Your task to perform on an android device: open app "Airtel Thanks" Image 0: 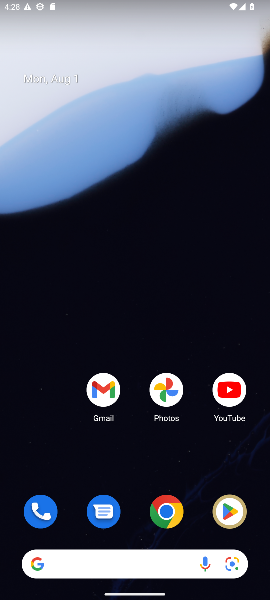
Step 0: press home button
Your task to perform on an android device: open app "Airtel Thanks" Image 1: 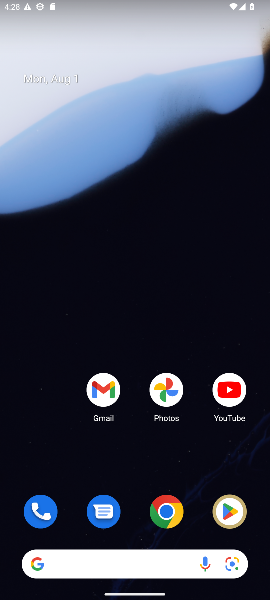
Step 1: drag from (121, 512) to (183, 149)
Your task to perform on an android device: open app "Airtel Thanks" Image 2: 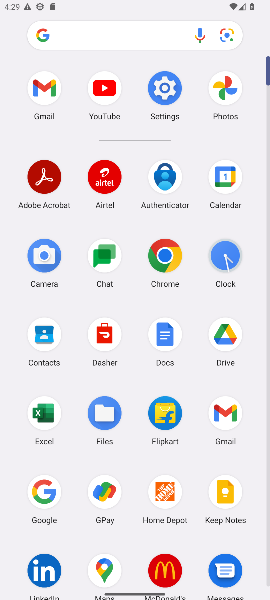
Step 2: drag from (123, 520) to (136, 292)
Your task to perform on an android device: open app "Airtel Thanks" Image 3: 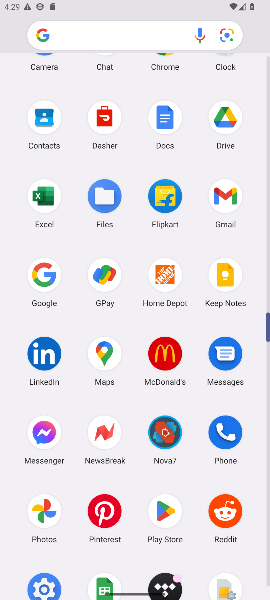
Step 3: click (164, 534)
Your task to perform on an android device: open app "Airtel Thanks" Image 4: 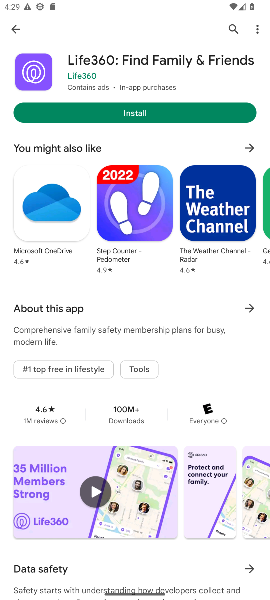
Step 4: click (17, 22)
Your task to perform on an android device: open app "Airtel Thanks" Image 5: 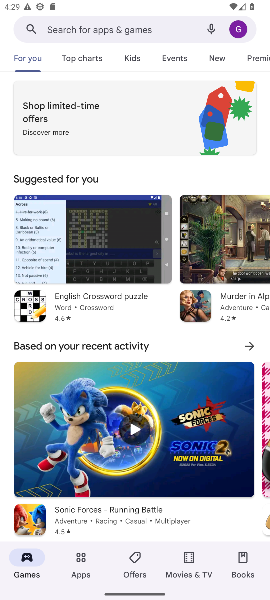
Step 5: click (112, 34)
Your task to perform on an android device: open app "Airtel Thanks" Image 6: 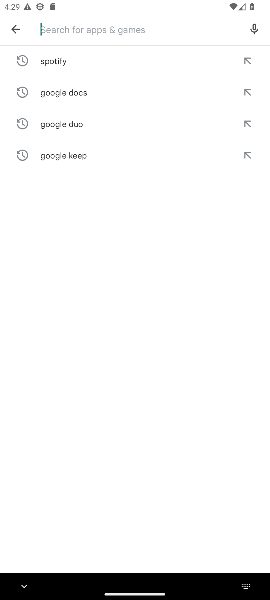
Step 6: type "Airtel Thanks"
Your task to perform on an android device: open app "Airtel Thanks" Image 7: 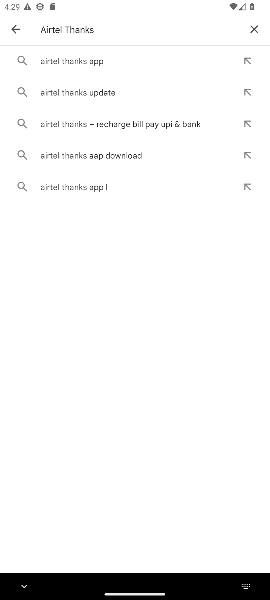
Step 7: click (36, 65)
Your task to perform on an android device: open app "Airtel Thanks" Image 8: 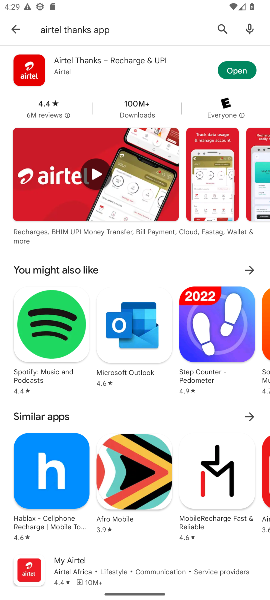
Step 8: click (239, 70)
Your task to perform on an android device: open app "Airtel Thanks" Image 9: 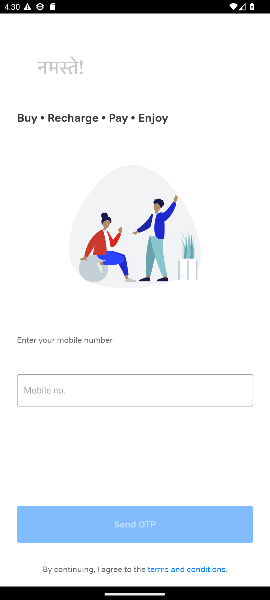
Step 9: task complete